Your task to perform on an android device: Open privacy settings Image 0: 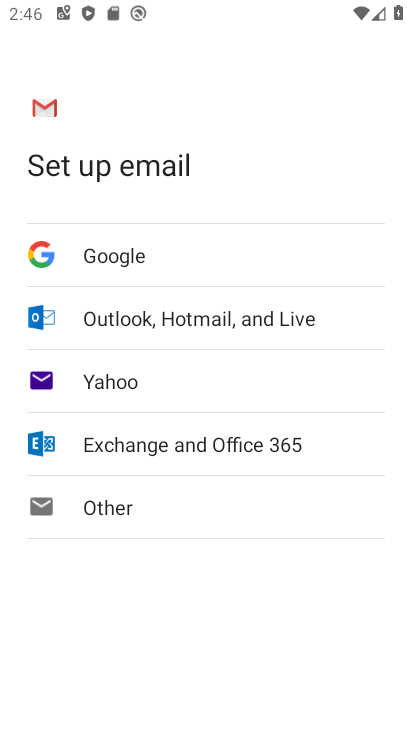
Step 0: press home button
Your task to perform on an android device: Open privacy settings Image 1: 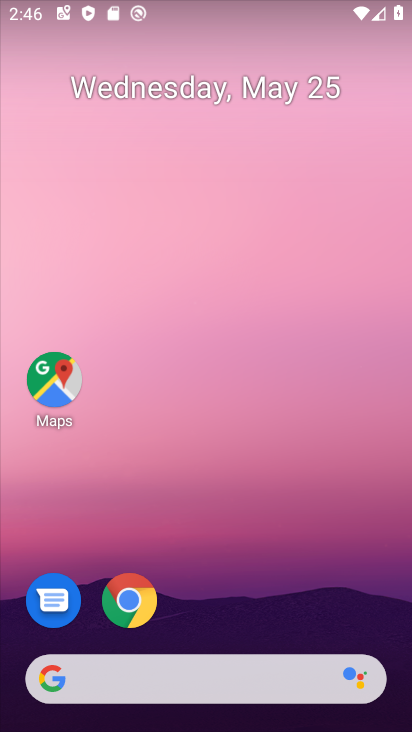
Step 1: drag from (45, 540) to (207, 165)
Your task to perform on an android device: Open privacy settings Image 2: 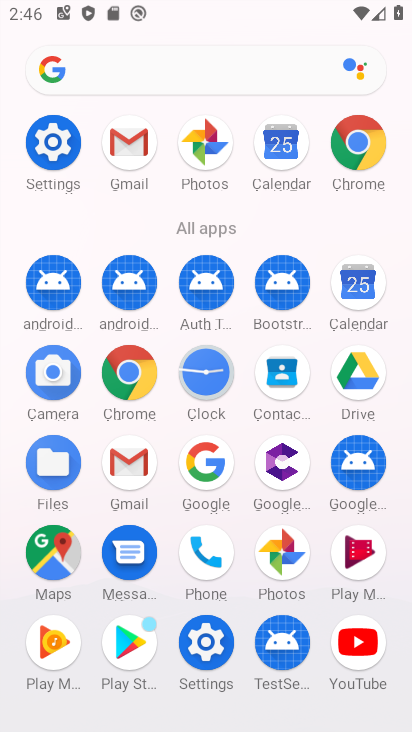
Step 2: click (43, 144)
Your task to perform on an android device: Open privacy settings Image 3: 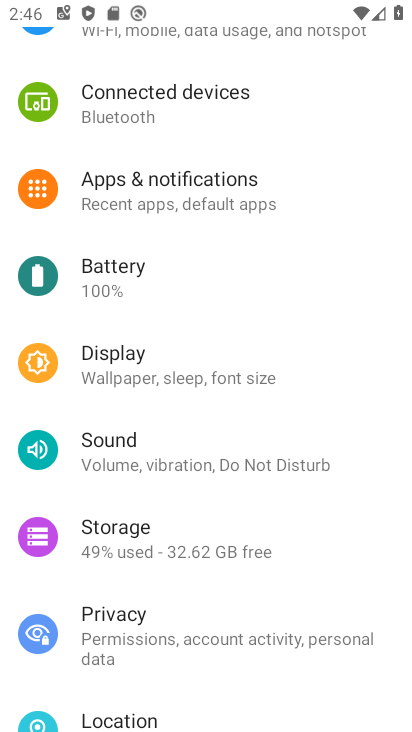
Step 3: click (128, 634)
Your task to perform on an android device: Open privacy settings Image 4: 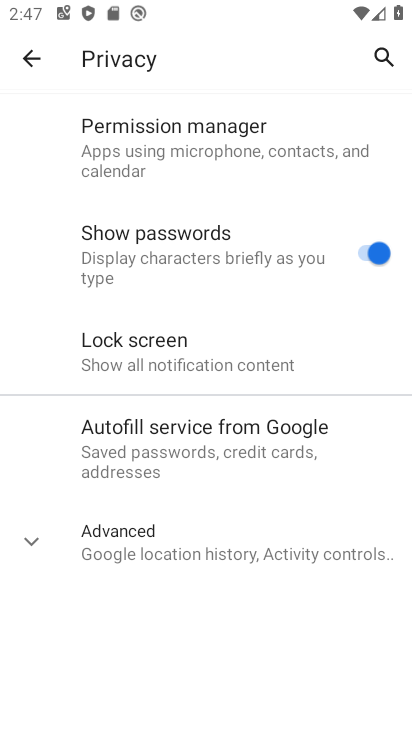
Step 4: task complete